Your task to perform on an android device: open app "Google Chrome" (install if not already installed) Image 0: 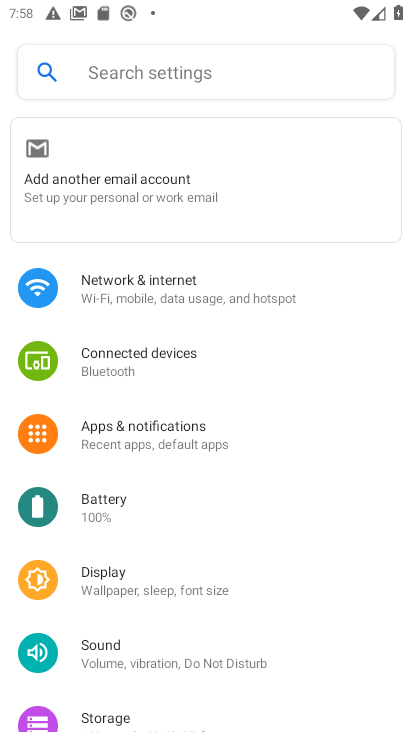
Step 0: press home button
Your task to perform on an android device: open app "Google Chrome" (install if not already installed) Image 1: 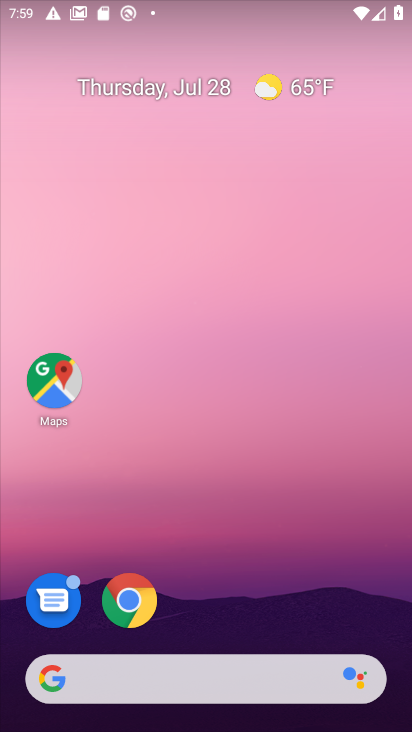
Step 1: drag from (142, 667) to (247, 219)
Your task to perform on an android device: open app "Google Chrome" (install if not already installed) Image 2: 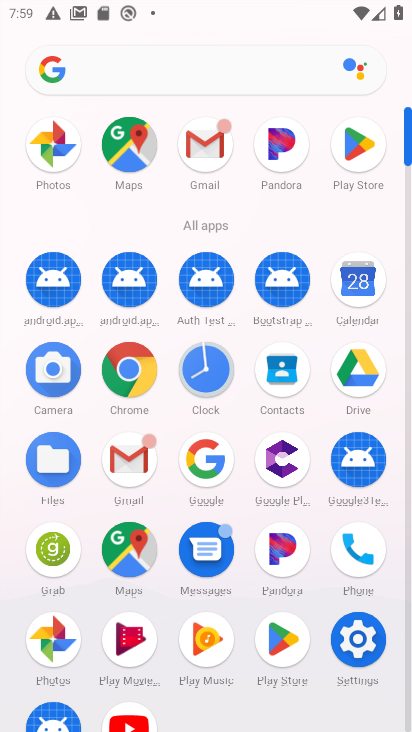
Step 2: drag from (184, 689) to (298, 247)
Your task to perform on an android device: open app "Google Chrome" (install if not already installed) Image 3: 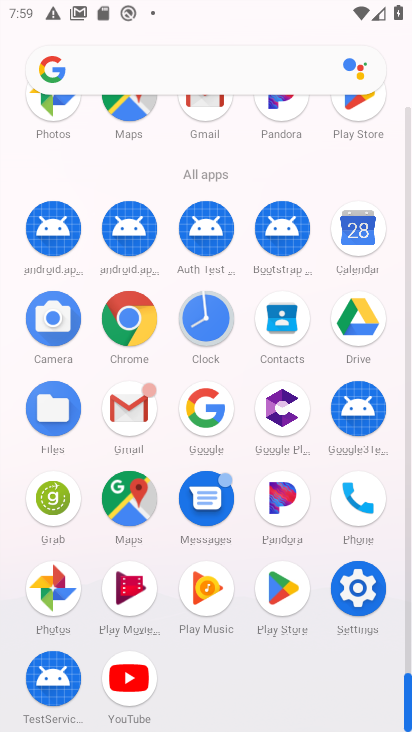
Step 3: drag from (277, 585) to (201, 355)
Your task to perform on an android device: open app "Google Chrome" (install if not already installed) Image 4: 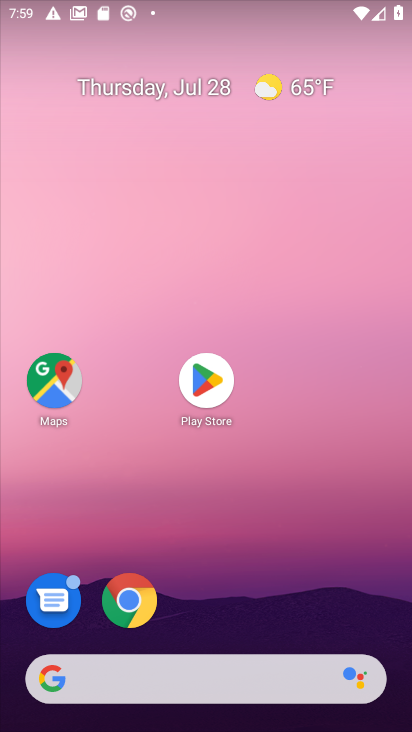
Step 4: click (198, 391)
Your task to perform on an android device: open app "Google Chrome" (install if not already installed) Image 5: 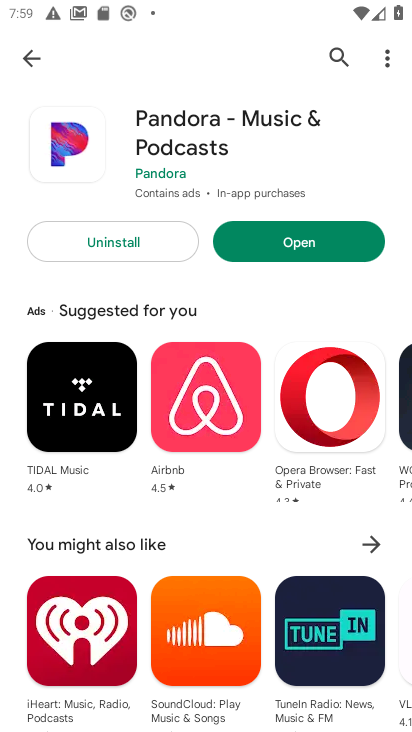
Step 5: click (30, 53)
Your task to perform on an android device: open app "Google Chrome" (install if not already installed) Image 6: 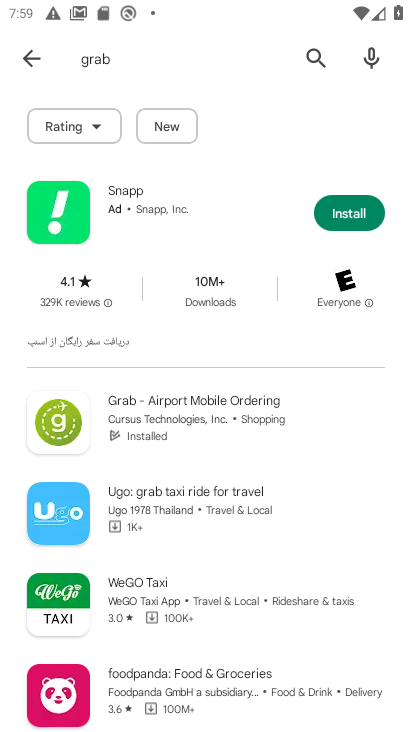
Step 6: click (307, 60)
Your task to perform on an android device: open app "Google Chrome" (install if not already installed) Image 7: 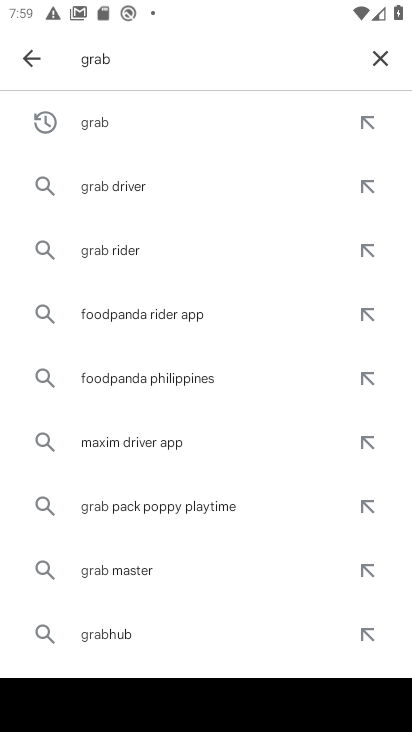
Step 7: click (400, 56)
Your task to perform on an android device: open app "Google Chrome" (install if not already installed) Image 8: 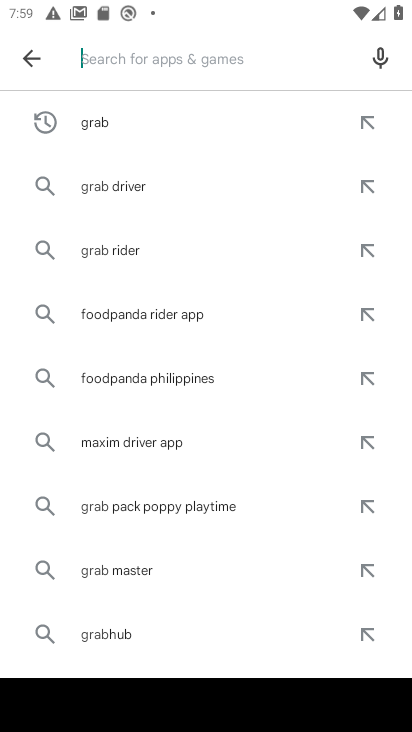
Step 8: click (370, 57)
Your task to perform on an android device: open app "Google Chrome" (install if not already installed) Image 9: 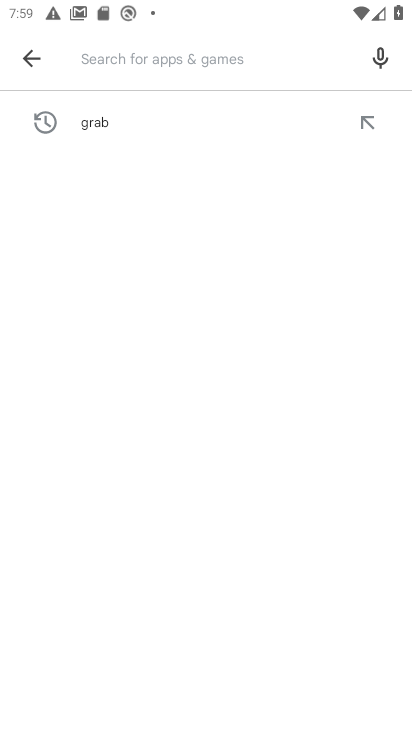
Step 9: click (176, 56)
Your task to perform on an android device: open app "Google Chrome" (install if not already installed) Image 10: 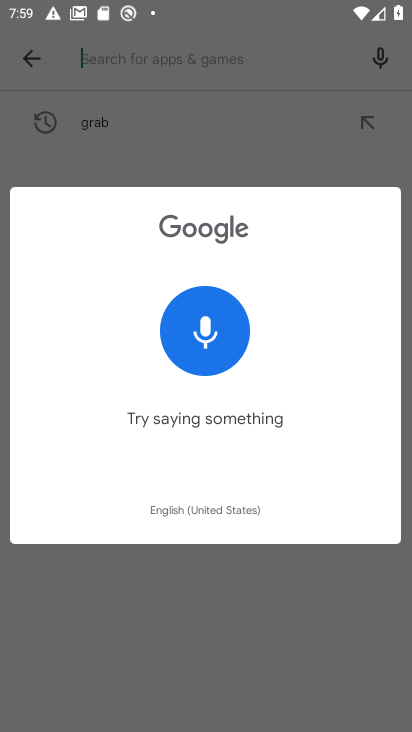
Step 10: click (25, 60)
Your task to perform on an android device: open app "Google Chrome" (install if not already installed) Image 11: 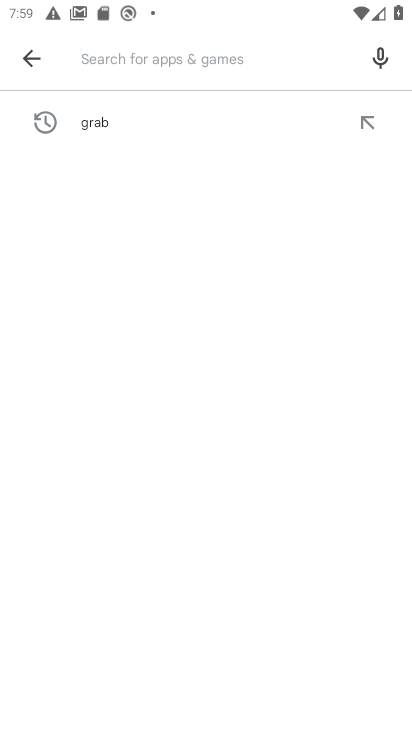
Step 11: type "Google Chrome"
Your task to perform on an android device: open app "Google Chrome" (install if not already installed) Image 12: 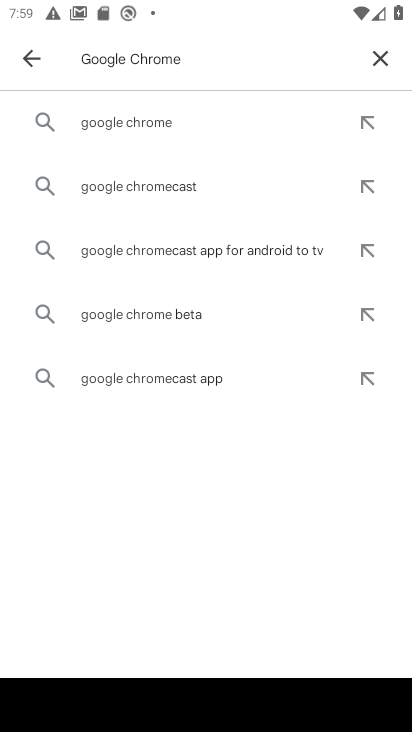
Step 12: click (151, 123)
Your task to perform on an android device: open app "Google Chrome" (install if not already installed) Image 13: 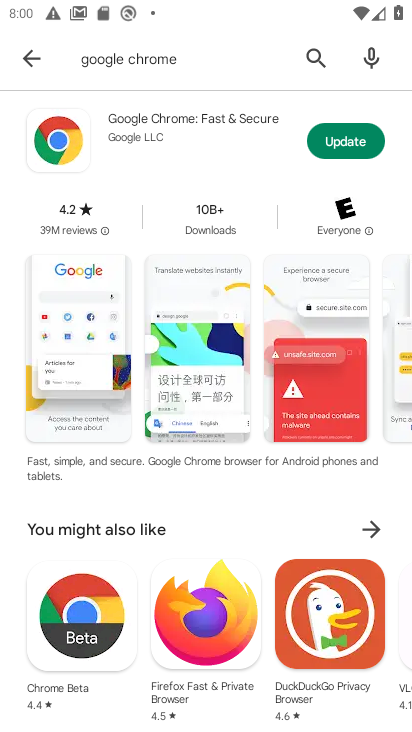
Step 13: task complete